Your task to perform on an android device: Look up the best selling books on Goodreads. Image 0: 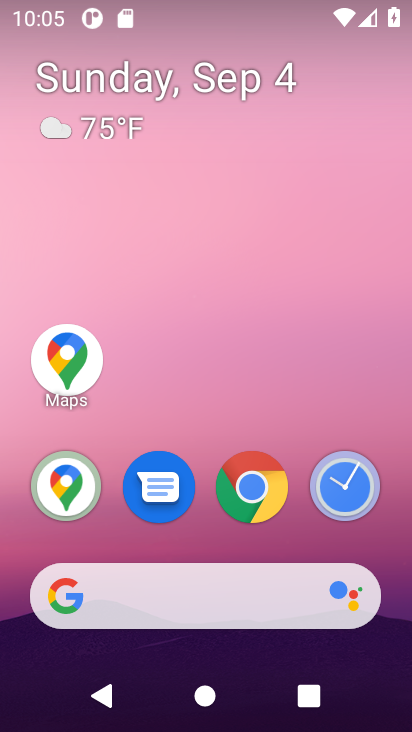
Step 0: click (333, 488)
Your task to perform on an android device: Look up the best selling books on Goodreads. Image 1: 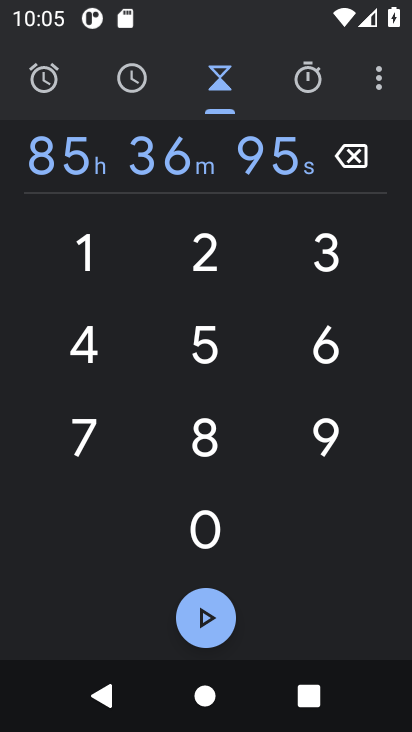
Step 1: click (284, 90)
Your task to perform on an android device: Look up the best selling books on Goodreads. Image 2: 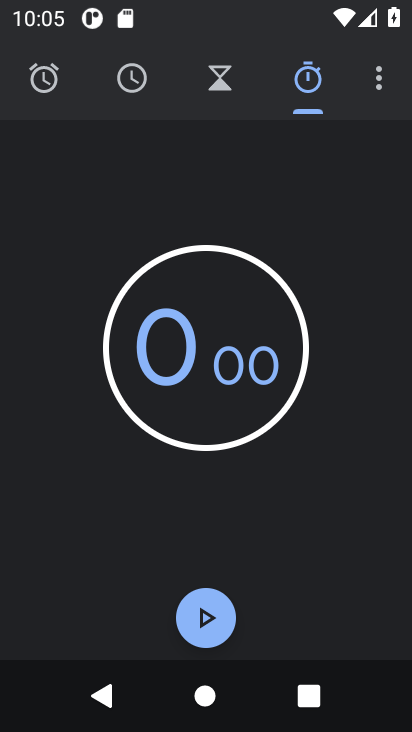
Step 2: task complete